Your task to perform on an android device: Open the phone app and click the voicemail tab. Image 0: 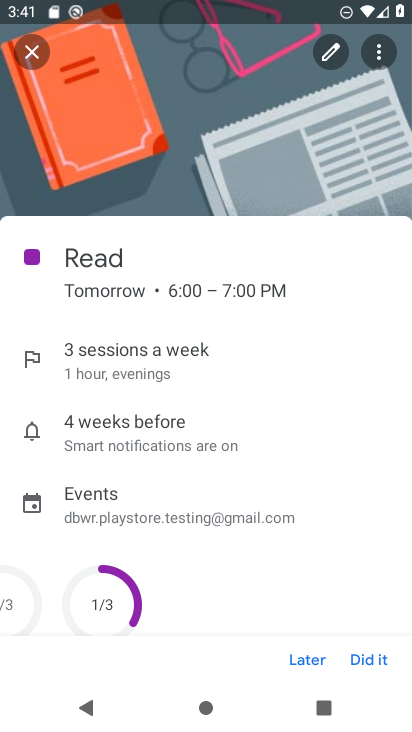
Step 0: press home button
Your task to perform on an android device: Open the phone app and click the voicemail tab. Image 1: 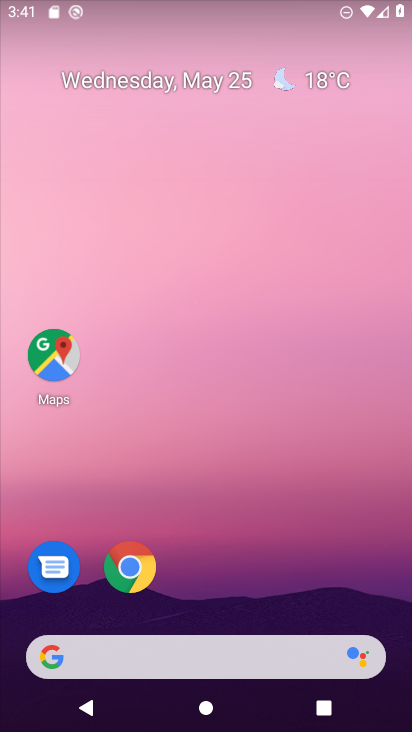
Step 1: drag from (375, 597) to (367, 250)
Your task to perform on an android device: Open the phone app and click the voicemail tab. Image 2: 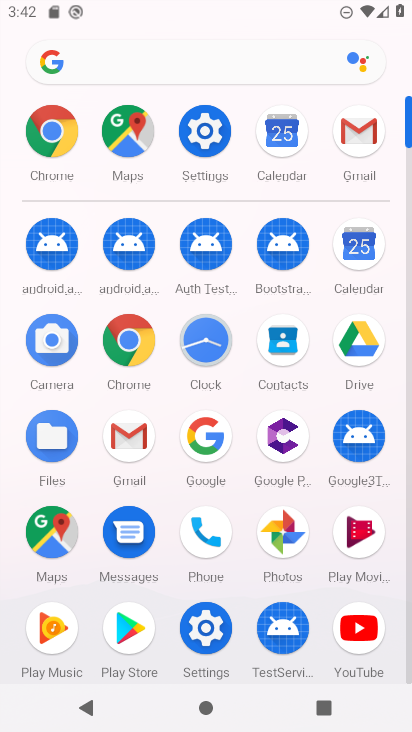
Step 2: click (207, 541)
Your task to perform on an android device: Open the phone app and click the voicemail tab. Image 3: 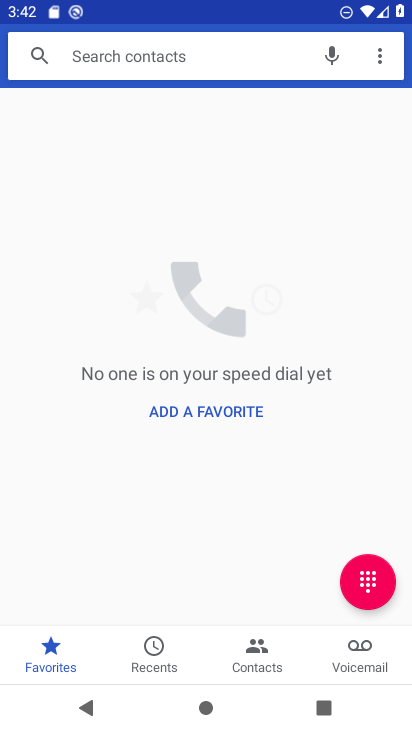
Step 3: click (366, 649)
Your task to perform on an android device: Open the phone app and click the voicemail tab. Image 4: 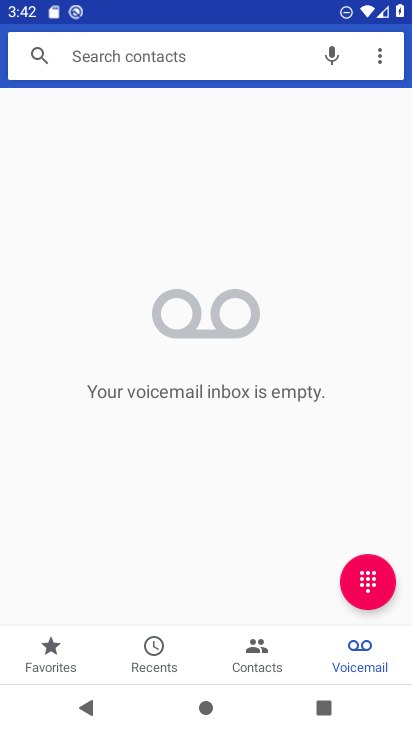
Step 4: task complete